Your task to perform on an android device: Open privacy settings Image 0: 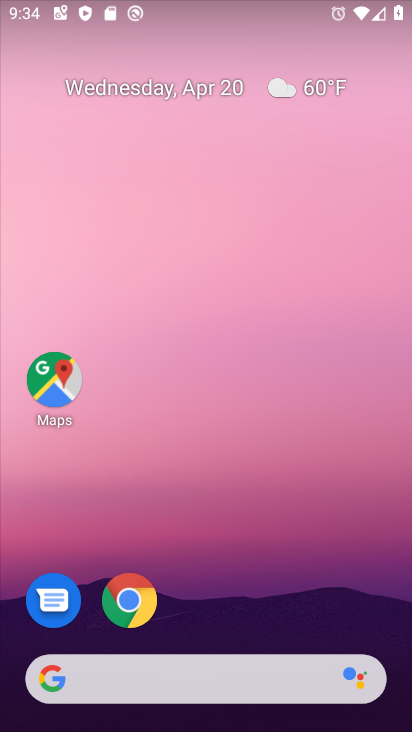
Step 0: drag from (230, 646) to (142, 34)
Your task to perform on an android device: Open privacy settings Image 1: 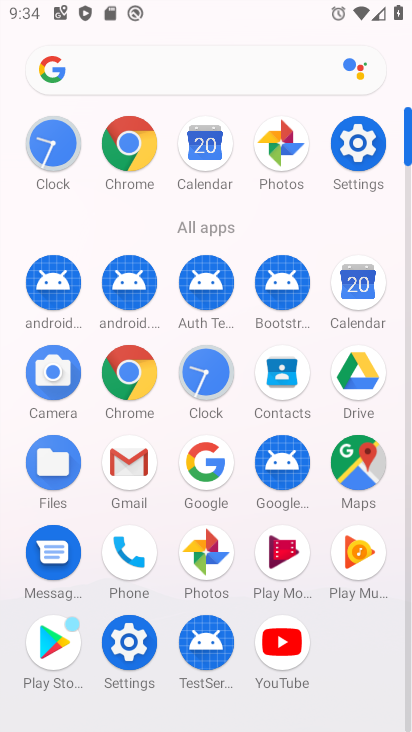
Step 1: click (121, 652)
Your task to perform on an android device: Open privacy settings Image 2: 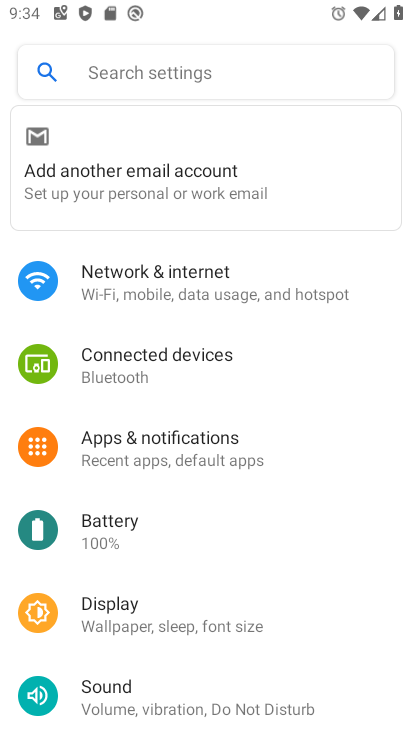
Step 2: drag from (169, 666) to (124, 326)
Your task to perform on an android device: Open privacy settings Image 3: 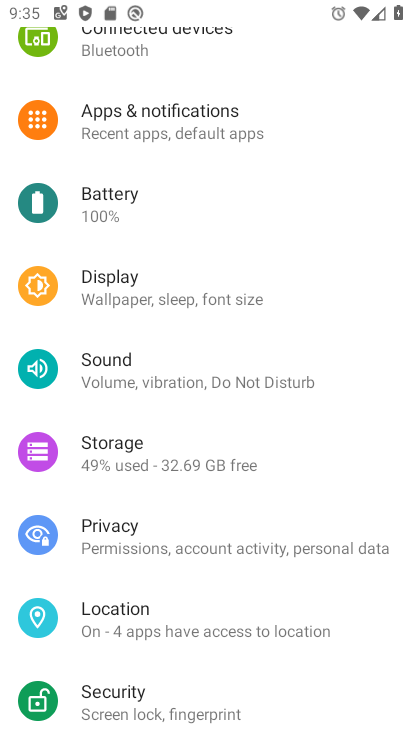
Step 3: click (137, 525)
Your task to perform on an android device: Open privacy settings Image 4: 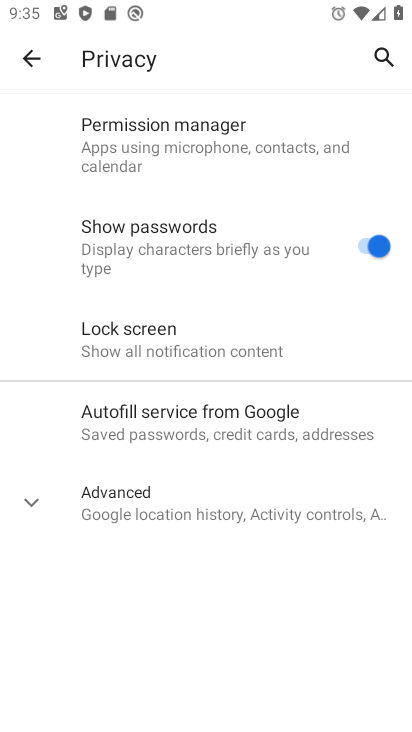
Step 4: task complete